Your task to perform on an android device: Search for seafood restaurants on Google Maps Image 0: 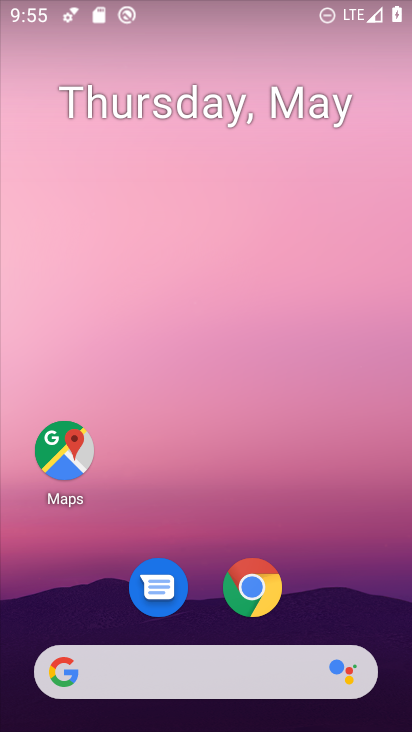
Step 0: click (68, 454)
Your task to perform on an android device: Search for seafood restaurants on Google Maps Image 1: 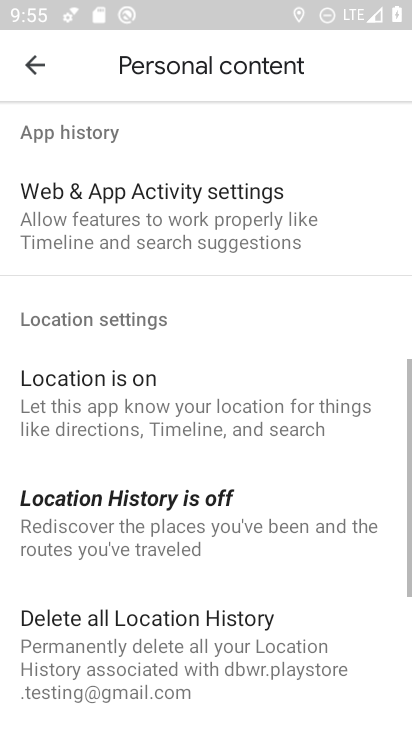
Step 1: click (35, 71)
Your task to perform on an android device: Search for seafood restaurants on Google Maps Image 2: 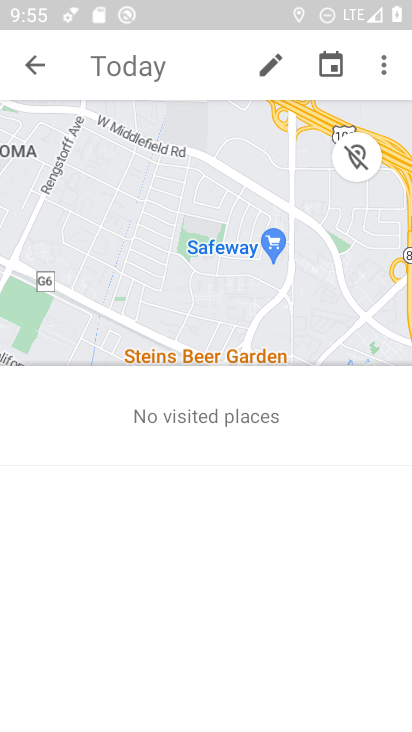
Step 2: click (37, 71)
Your task to perform on an android device: Search for seafood restaurants on Google Maps Image 3: 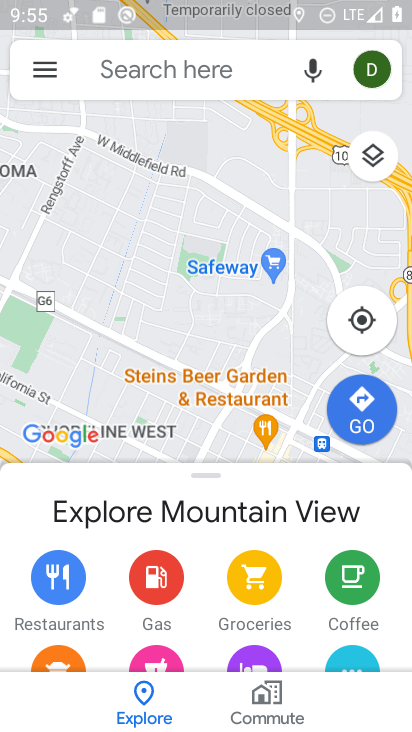
Step 3: click (105, 71)
Your task to perform on an android device: Search for seafood restaurants on Google Maps Image 4: 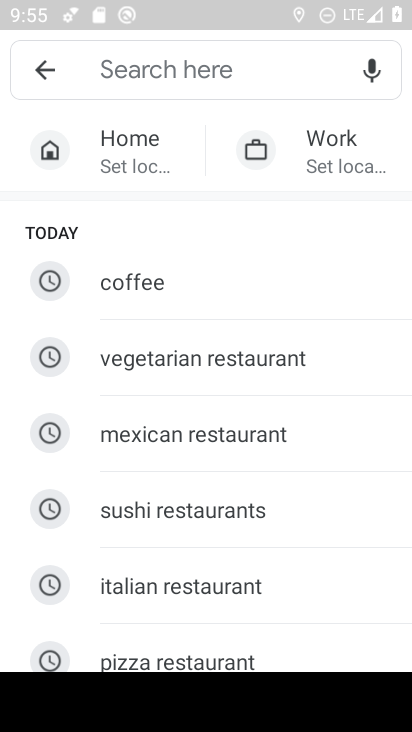
Step 4: type "seafood restaurant"
Your task to perform on an android device: Search for seafood restaurants on Google Maps Image 5: 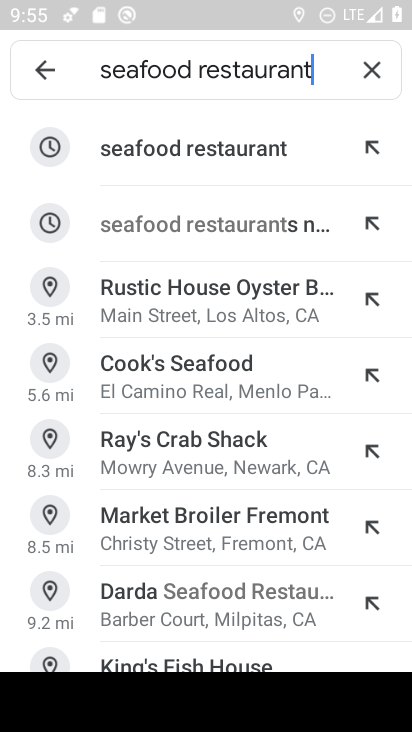
Step 5: click (164, 138)
Your task to perform on an android device: Search for seafood restaurants on Google Maps Image 6: 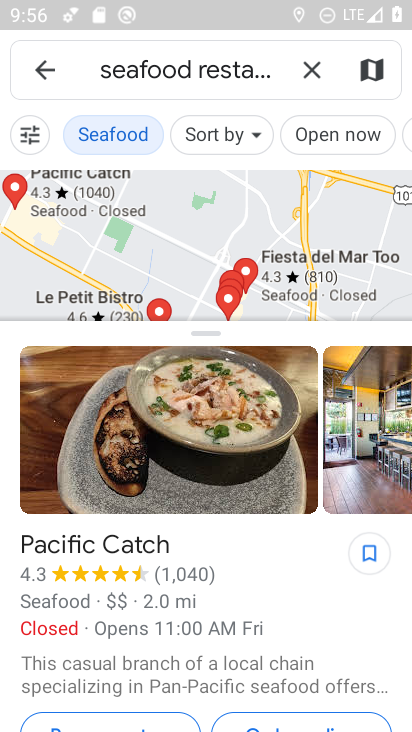
Step 6: task complete